Your task to perform on an android device: install app "Adobe Acrobat Reader" Image 0: 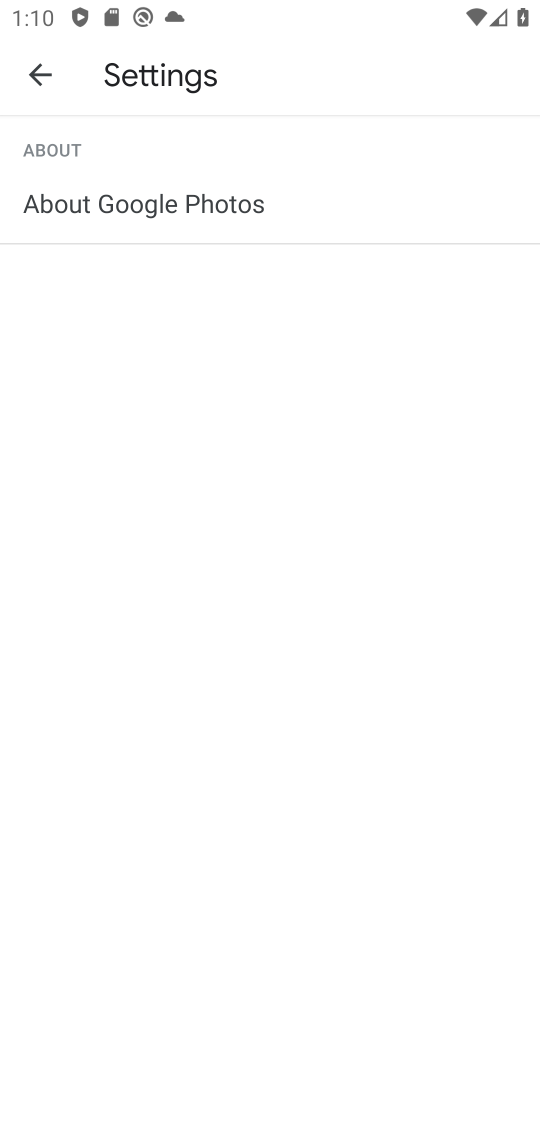
Step 0: press home button
Your task to perform on an android device: install app "Adobe Acrobat Reader" Image 1: 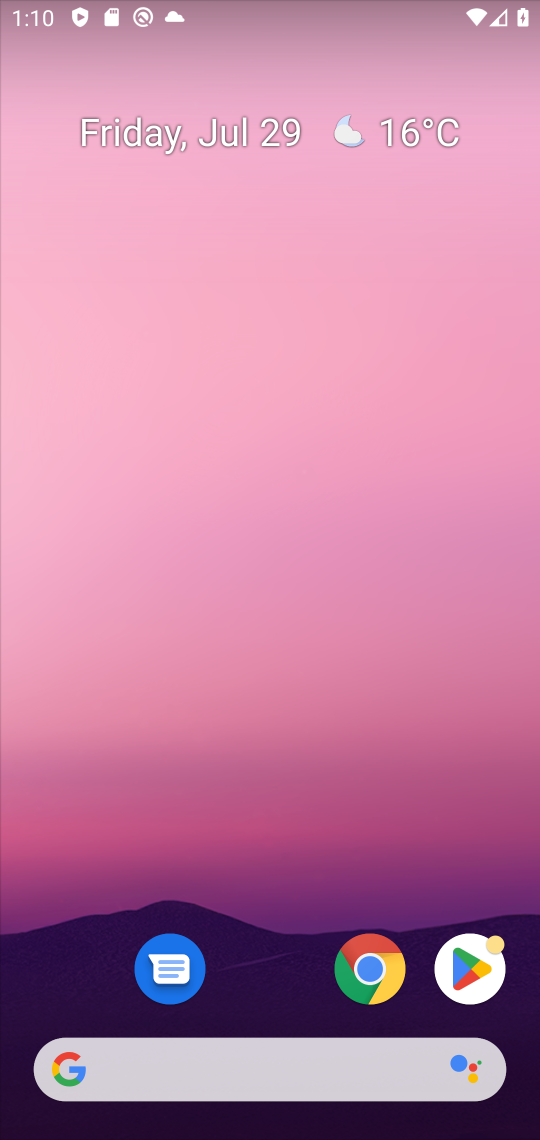
Step 1: click (469, 986)
Your task to perform on an android device: install app "Adobe Acrobat Reader" Image 2: 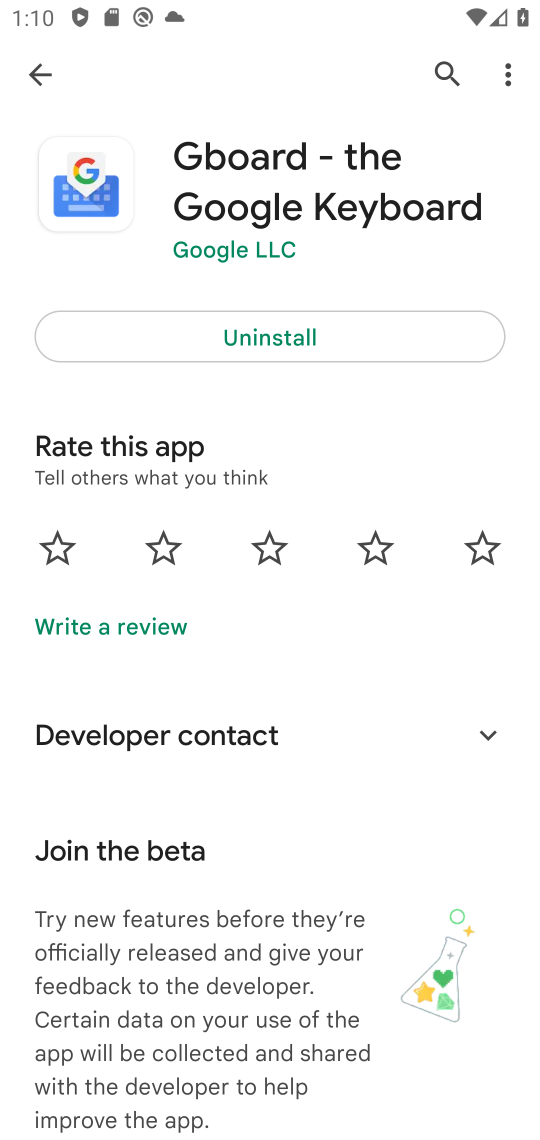
Step 2: click (443, 64)
Your task to perform on an android device: install app "Adobe Acrobat Reader" Image 3: 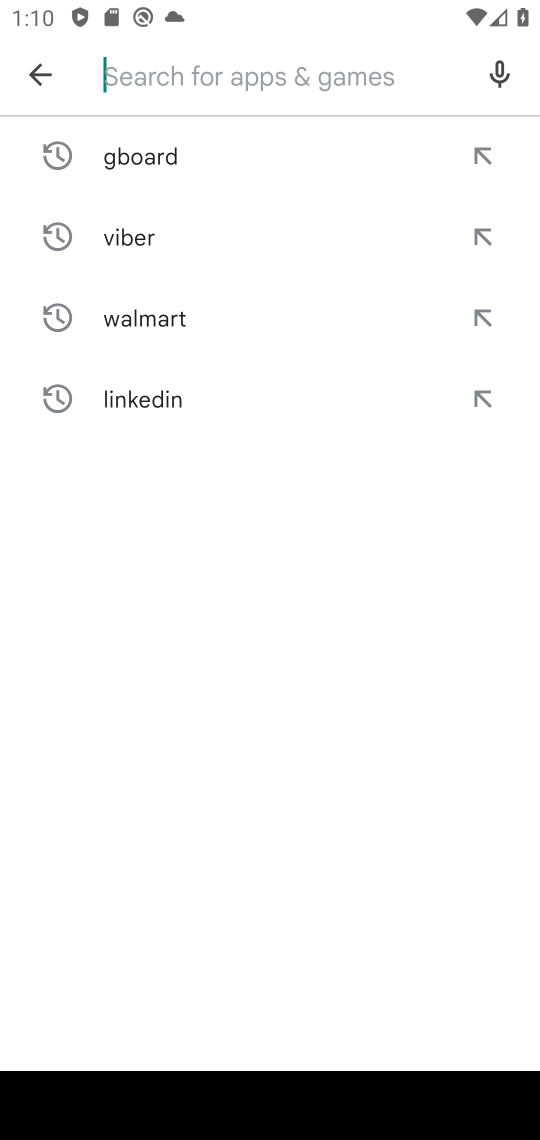
Step 3: type "adobe"
Your task to perform on an android device: install app "Adobe Acrobat Reader" Image 4: 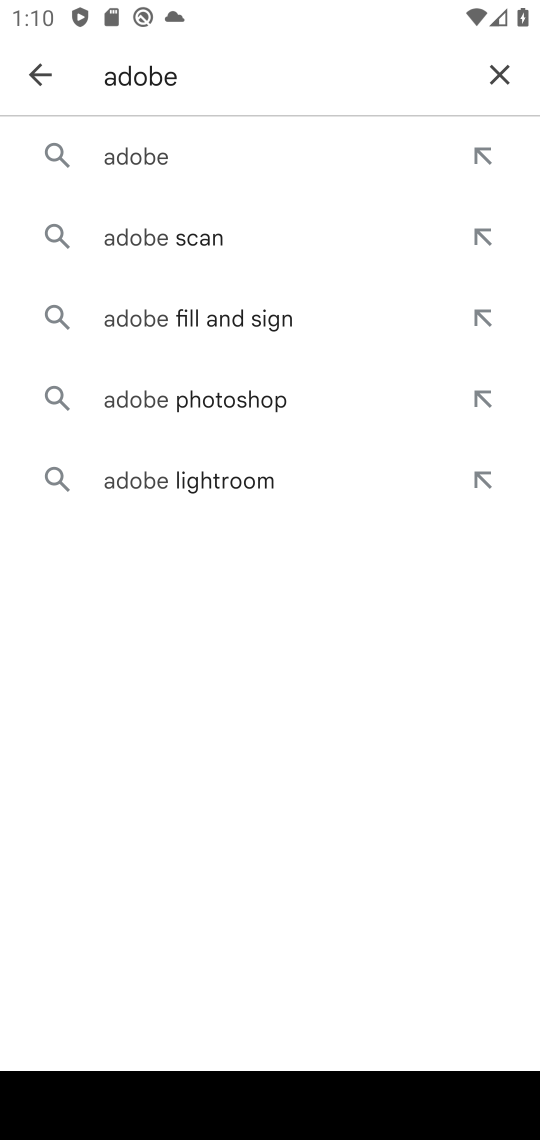
Step 4: click (178, 155)
Your task to perform on an android device: install app "Adobe Acrobat Reader" Image 5: 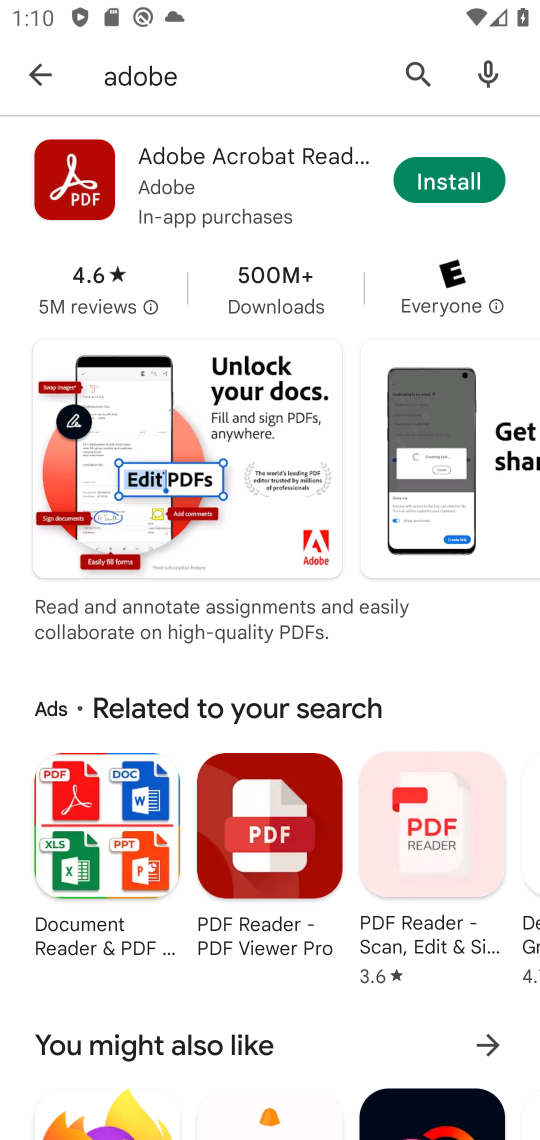
Step 5: click (438, 192)
Your task to perform on an android device: install app "Adobe Acrobat Reader" Image 6: 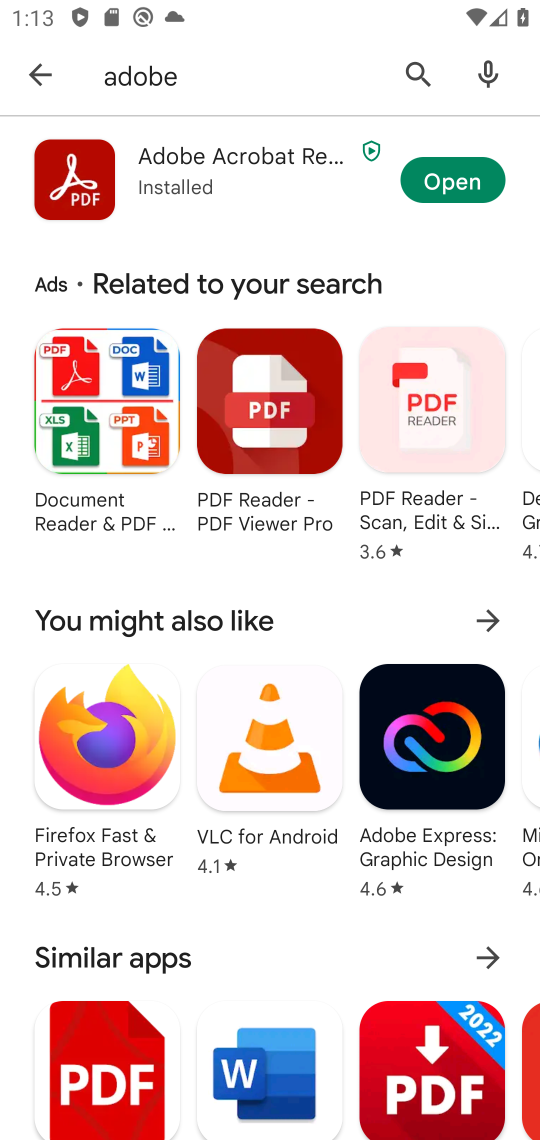
Step 6: task complete